Your task to perform on an android device: Search for "logitech g910" on amazon, select the first entry, add it to the cart, then select checkout. Image 0: 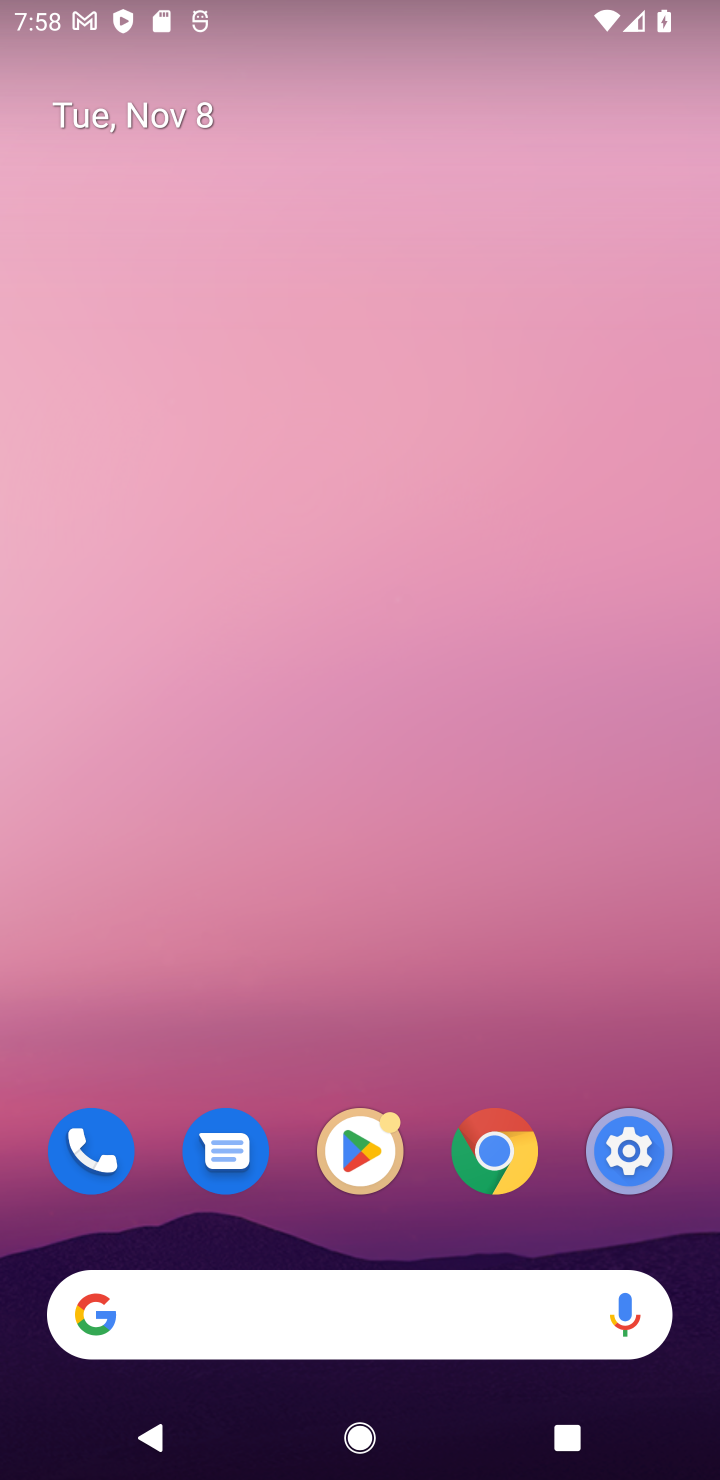
Step 0: click (429, 1298)
Your task to perform on an android device: Search for "logitech g910" on amazon, select the first entry, add it to the cart, then select checkout. Image 1: 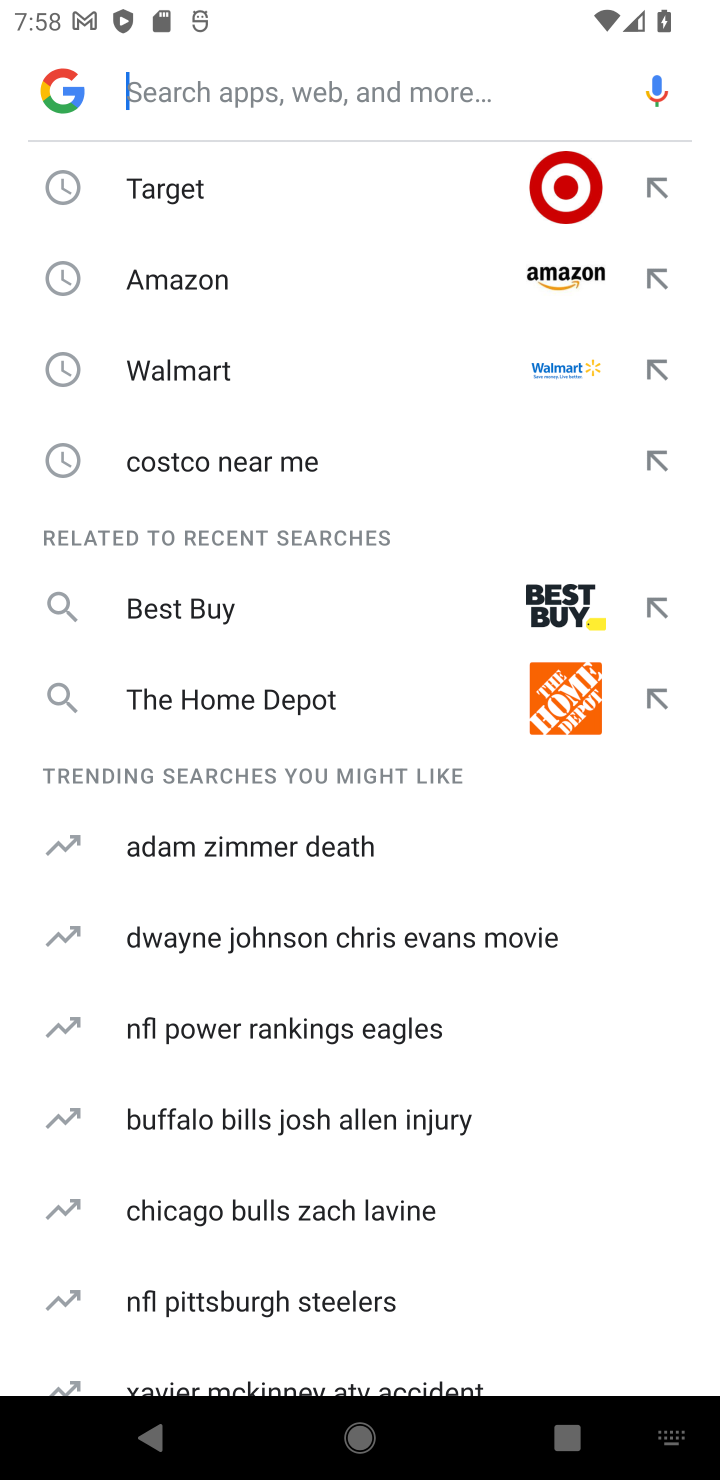
Step 1: type "amazon"
Your task to perform on an android device: Search for "logitech g910" on amazon, select the first entry, add it to the cart, then select checkout. Image 2: 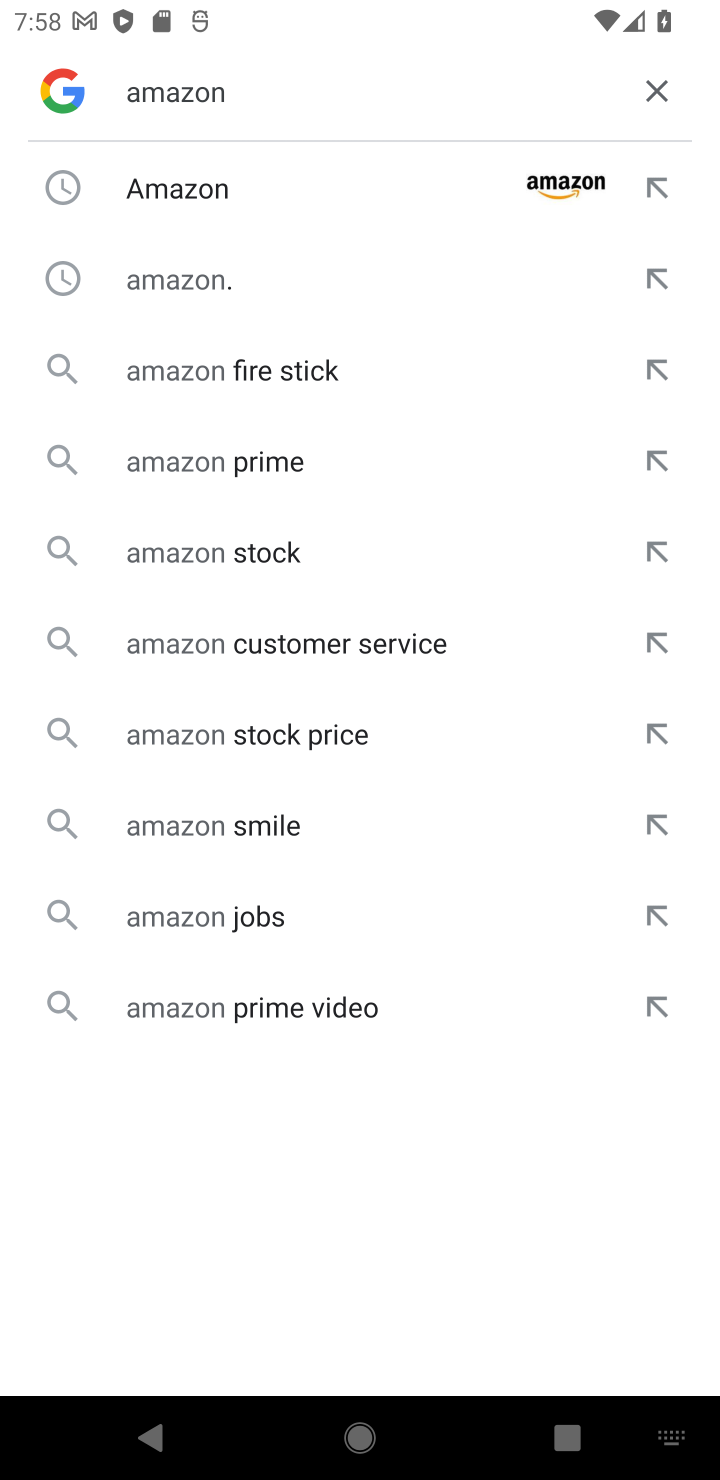
Step 2: click (411, 206)
Your task to perform on an android device: Search for "logitech g910" on amazon, select the first entry, add it to the cart, then select checkout. Image 3: 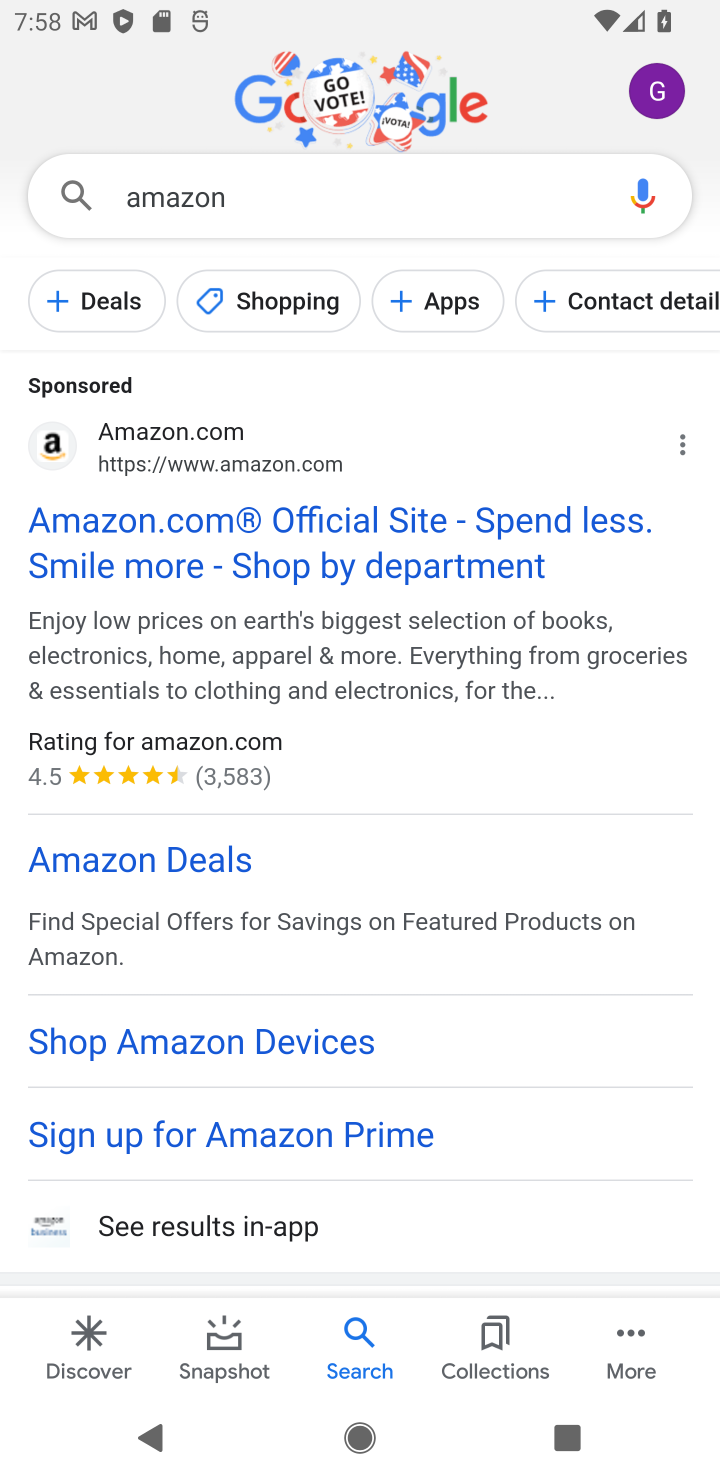
Step 3: click (402, 548)
Your task to perform on an android device: Search for "logitech g910" on amazon, select the first entry, add it to the cart, then select checkout. Image 4: 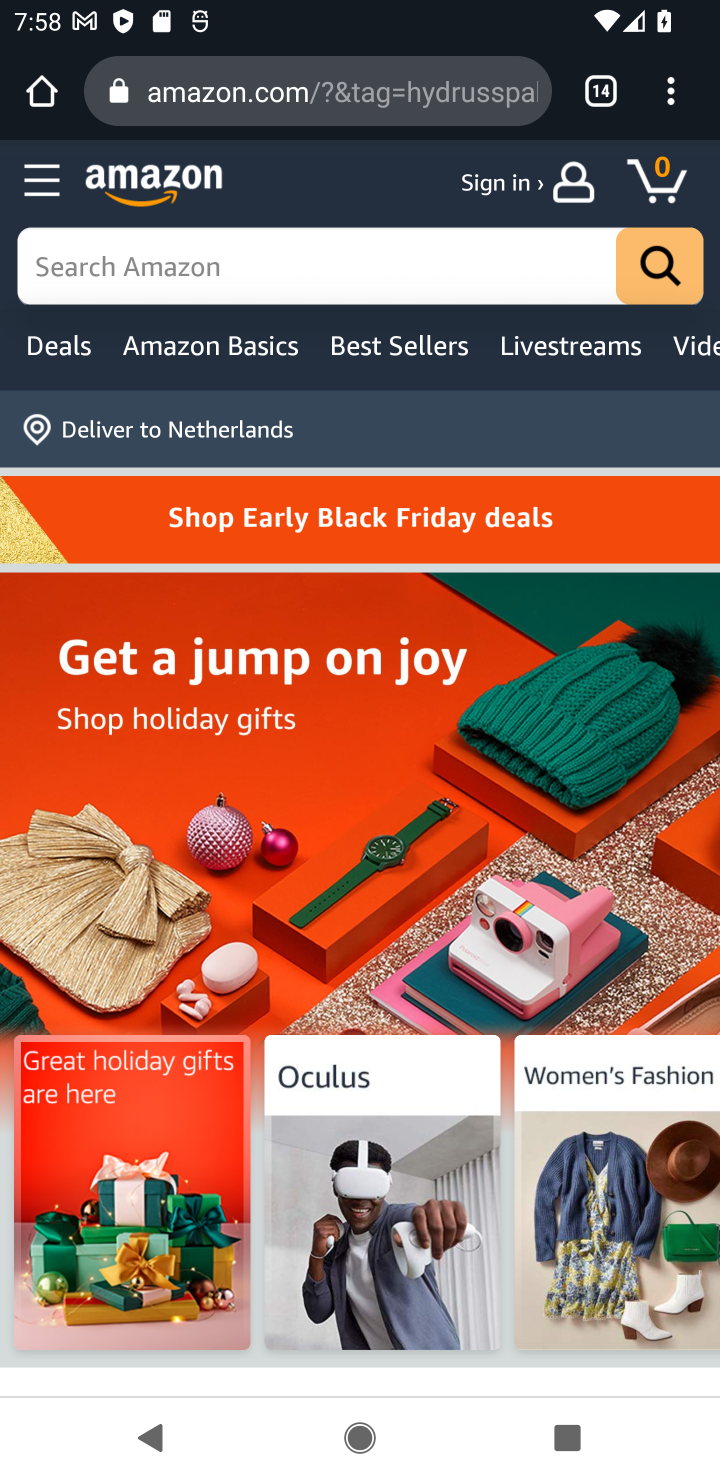
Step 4: click (164, 260)
Your task to perform on an android device: Search for "logitech g910" on amazon, select the first entry, add it to the cart, then select checkout. Image 5: 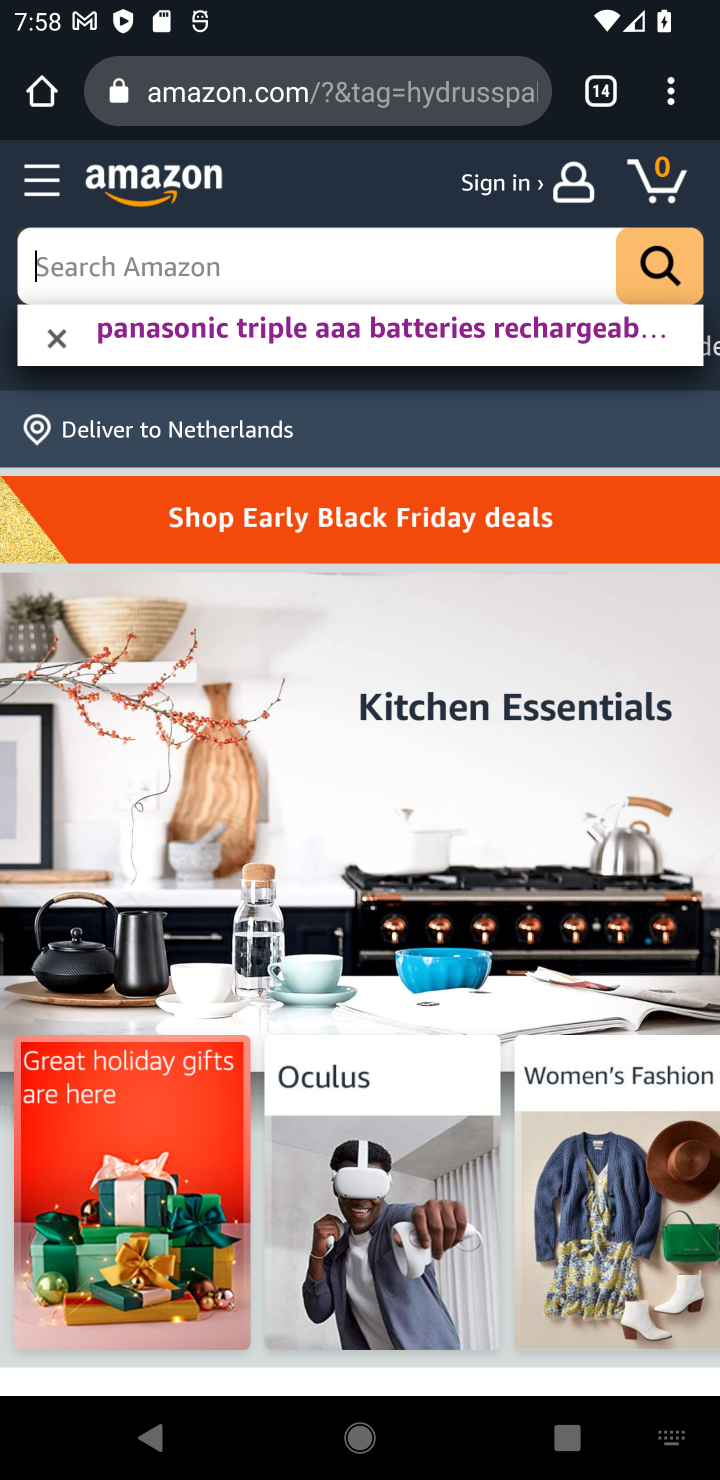
Step 5: type "logitech g910"
Your task to perform on an android device: Search for "logitech g910" on amazon, select the first entry, add it to the cart, then select checkout. Image 6: 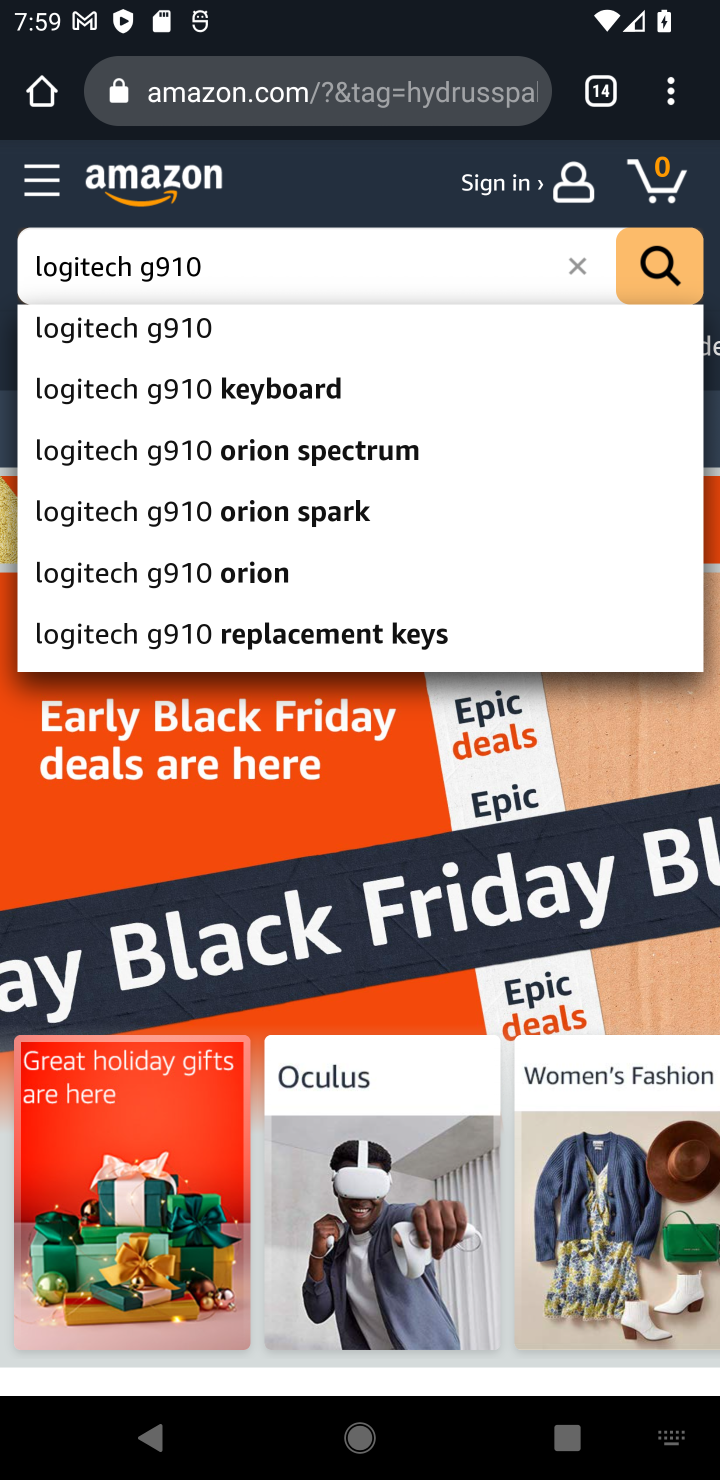
Step 6: click (169, 318)
Your task to perform on an android device: Search for "logitech g910" on amazon, select the first entry, add it to the cart, then select checkout. Image 7: 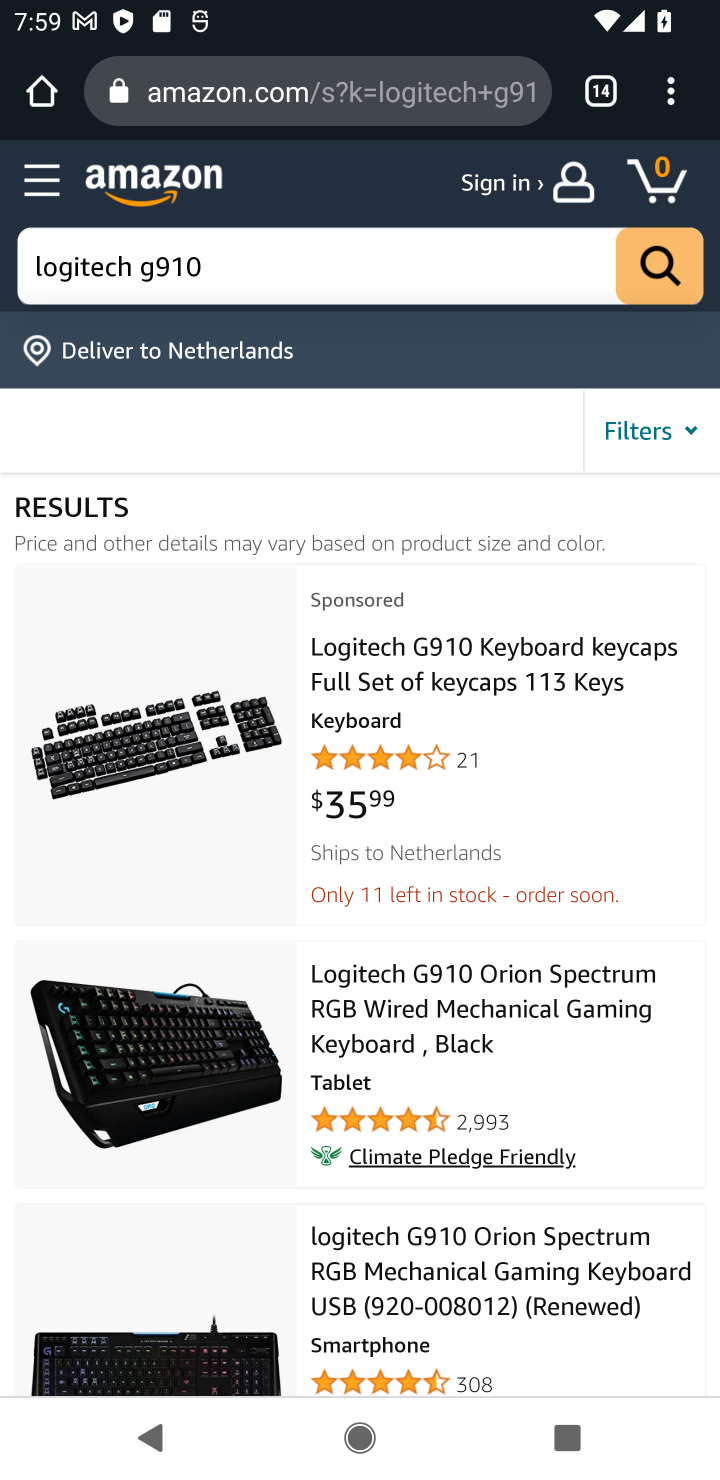
Step 7: click (462, 707)
Your task to perform on an android device: Search for "logitech g910" on amazon, select the first entry, add it to the cart, then select checkout. Image 8: 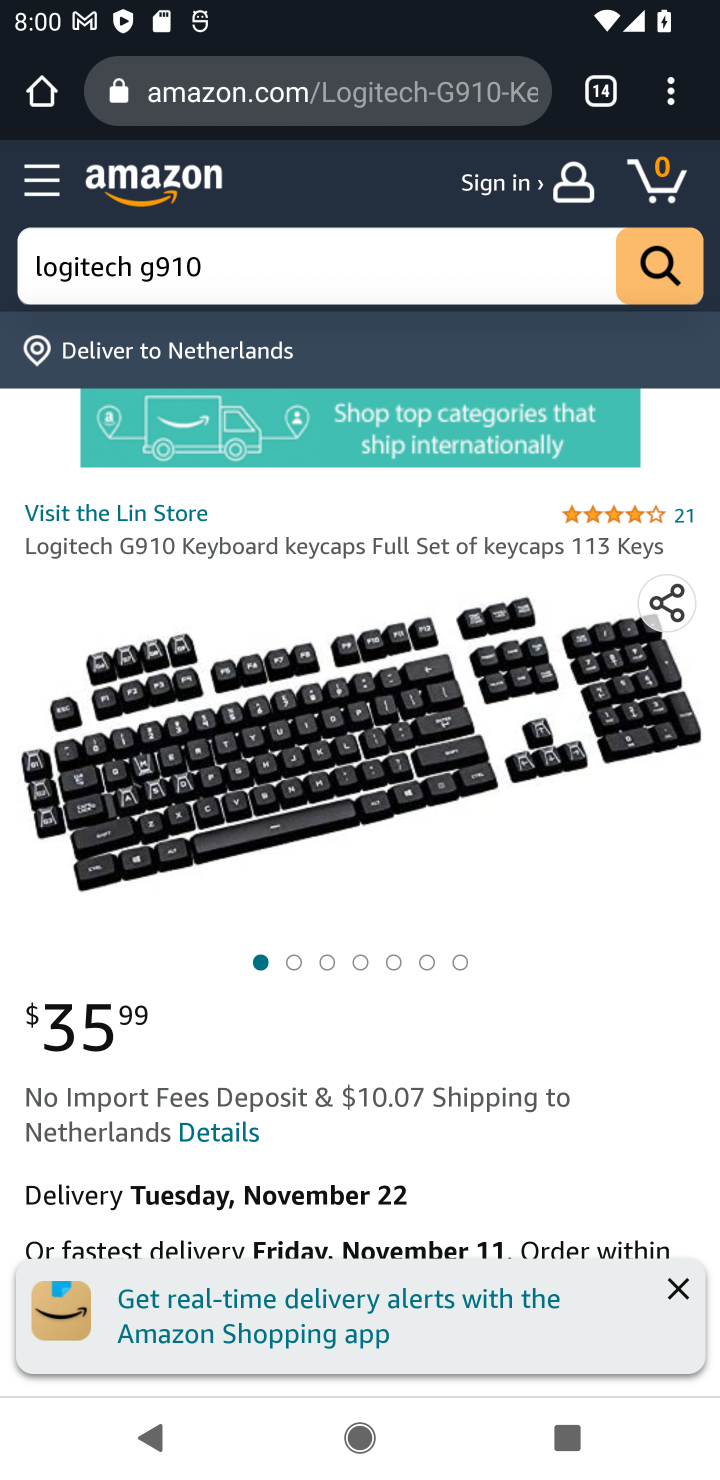
Step 8: click (694, 1297)
Your task to perform on an android device: Search for "logitech g910" on amazon, select the first entry, add it to the cart, then select checkout. Image 9: 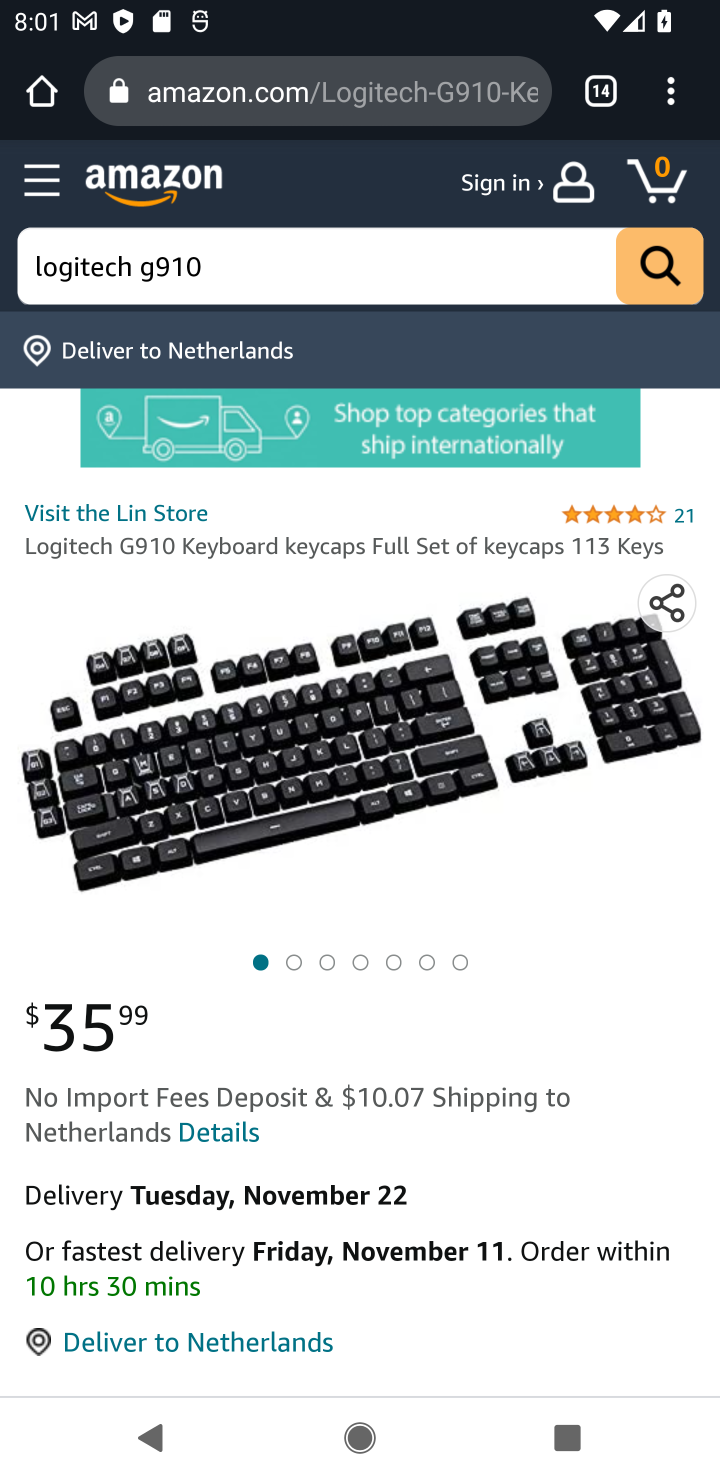
Step 9: task complete